Your task to perform on an android device: Go to Reddit.com Image 0: 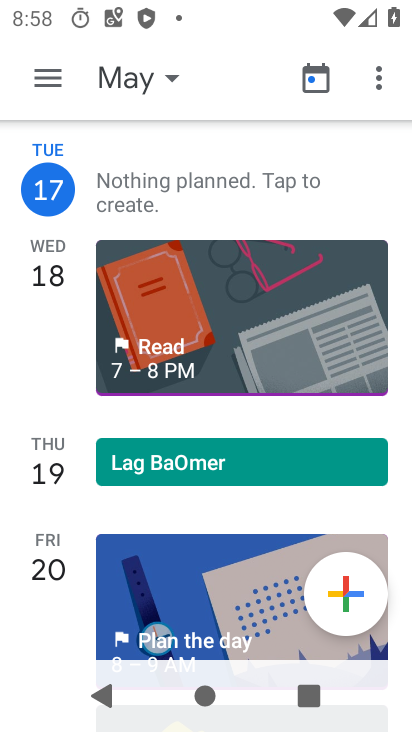
Step 0: press home button
Your task to perform on an android device: Go to Reddit.com Image 1: 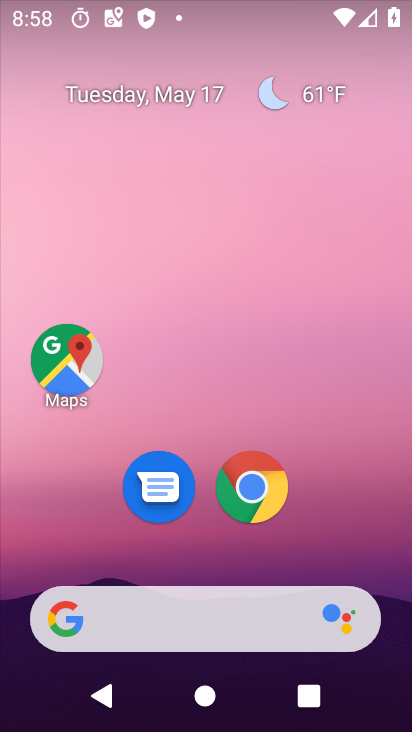
Step 1: click (251, 502)
Your task to perform on an android device: Go to Reddit.com Image 2: 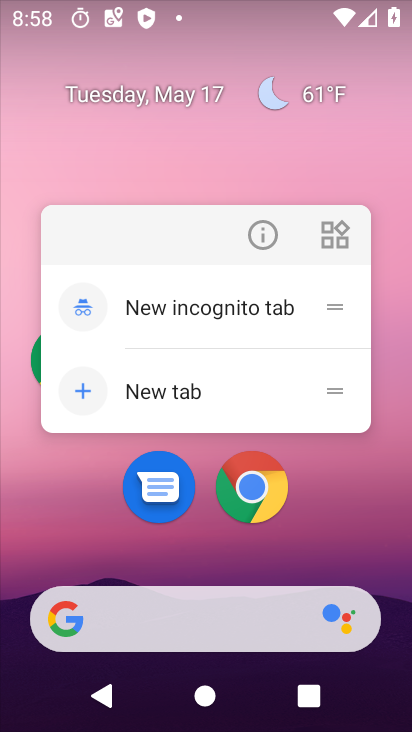
Step 2: click (252, 493)
Your task to perform on an android device: Go to Reddit.com Image 3: 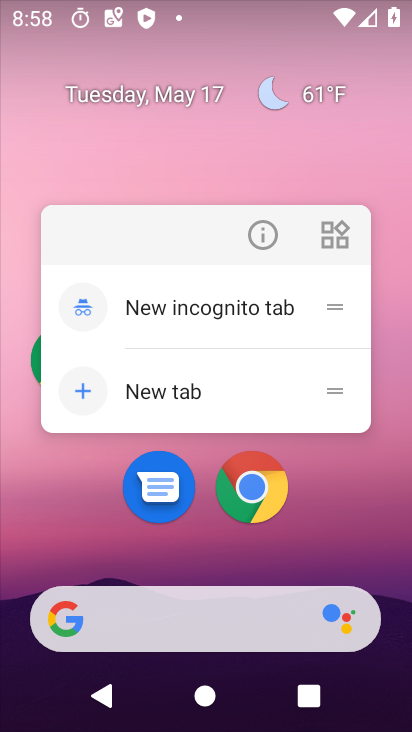
Step 3: click (257, 488)
Your task to perform on an android device: Go to Reddit.com Image 4: 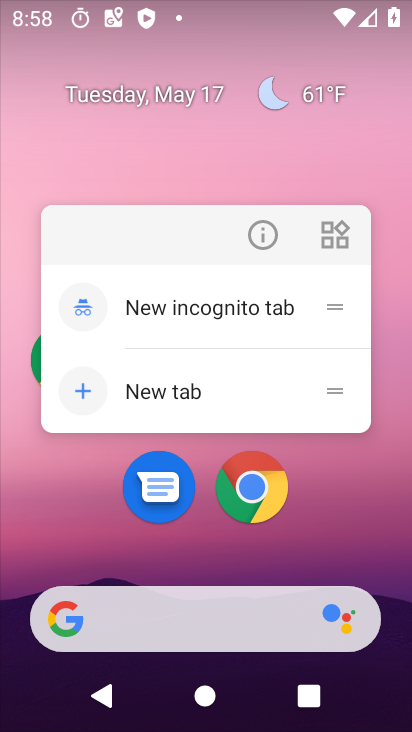
Step 4: click (253, 500)
Your task to perform on an android device: Go to Reddit.com Image 5: 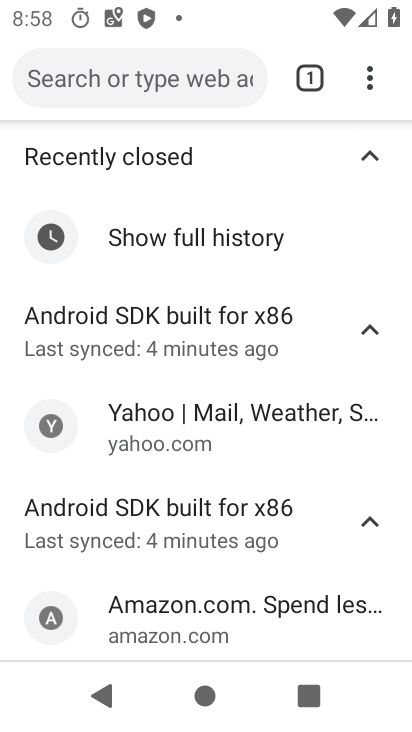
Step 5: drag from (367, 80) to (247, 145)
Your task to perform on an android device: Go to Reddit.com Image 6: 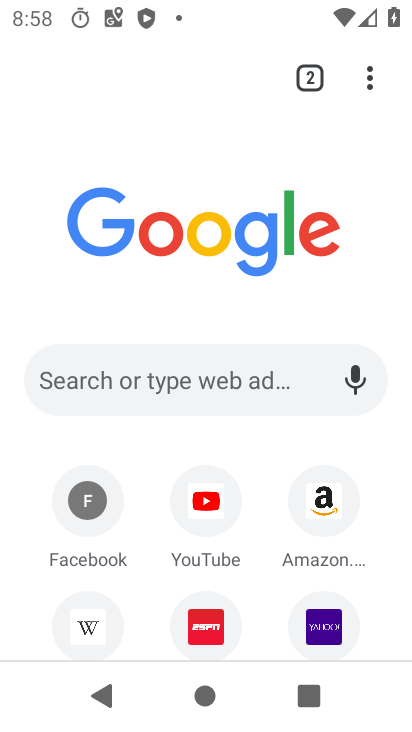
Step 6: click (200, 382)
Your task to perform on an android device: Go to Reddit.com Image 7: 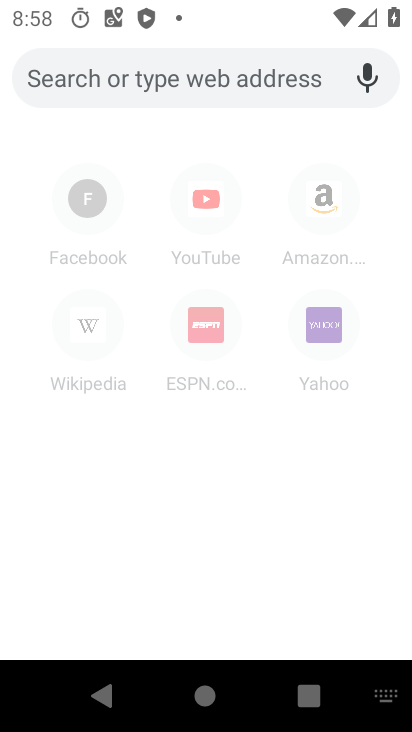
Step 7: type "reddit.com"
Your task to perform on an android device: Go to Reddit.com Image 8: 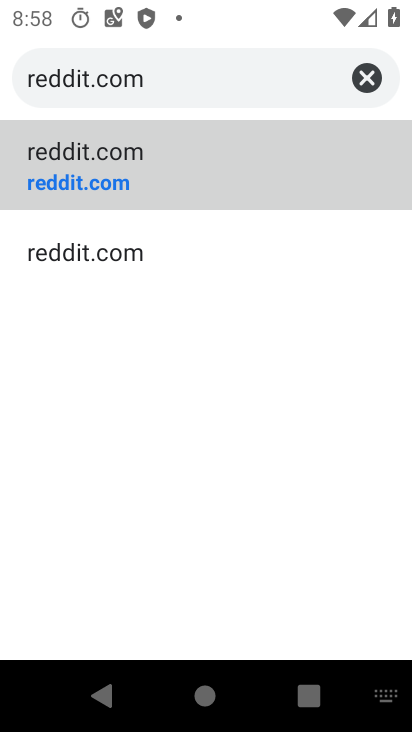
Step 8: click (113, 162)
Your task to perform on an android device: Go to Reddit.com Image 9: 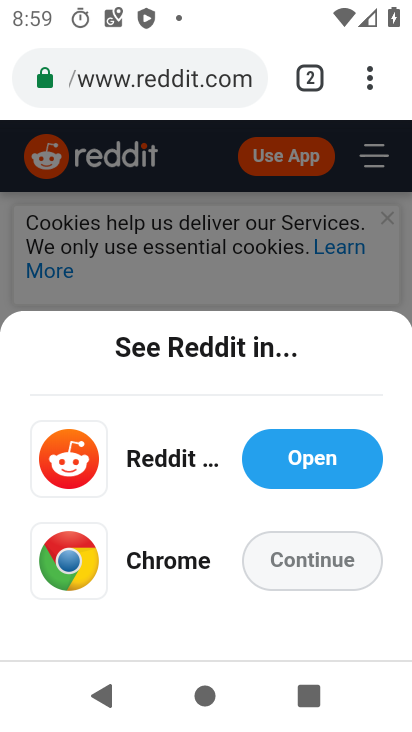
Step 9: task complete